Your task to perform on an android device: install app "Google Maps" Image 0: 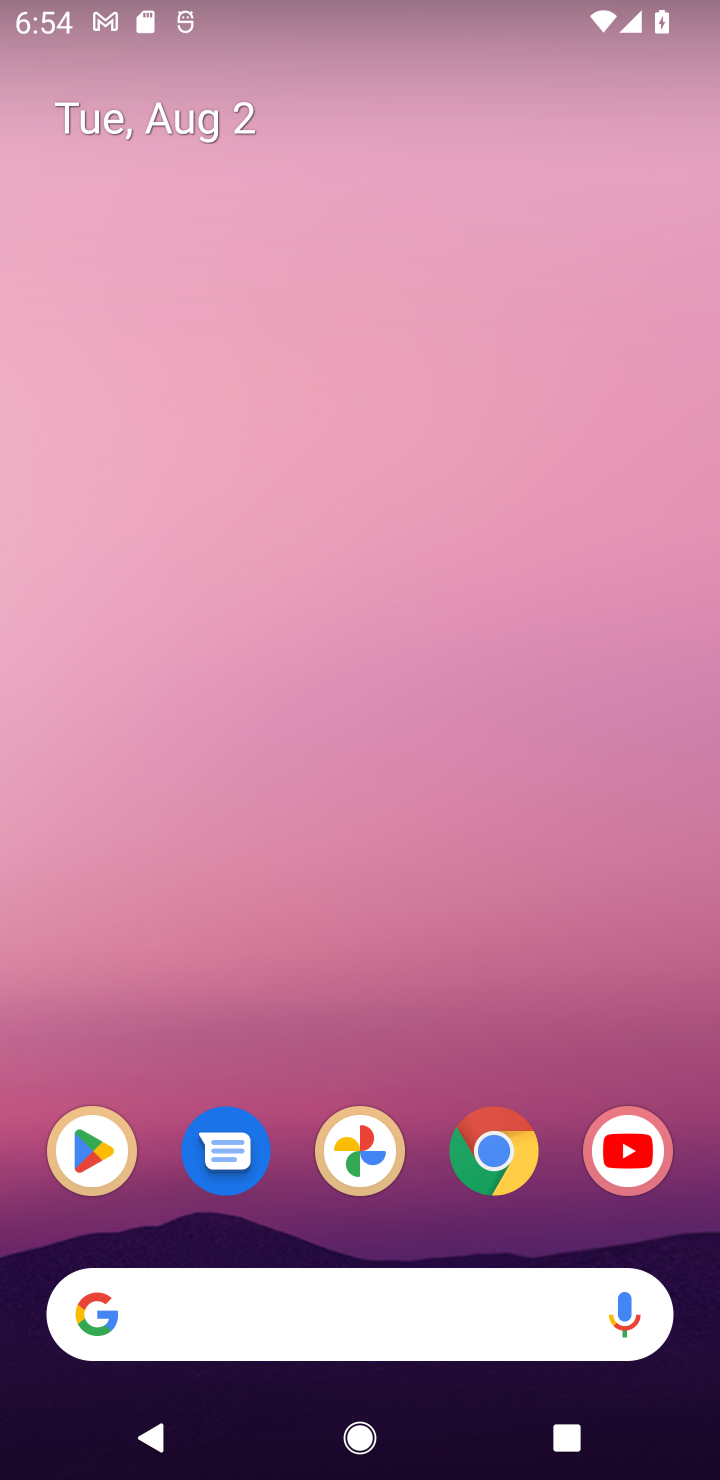
Step 0: click (44, 1203)
Your task to perform on an android device: install app "Google Maps" Image 1: 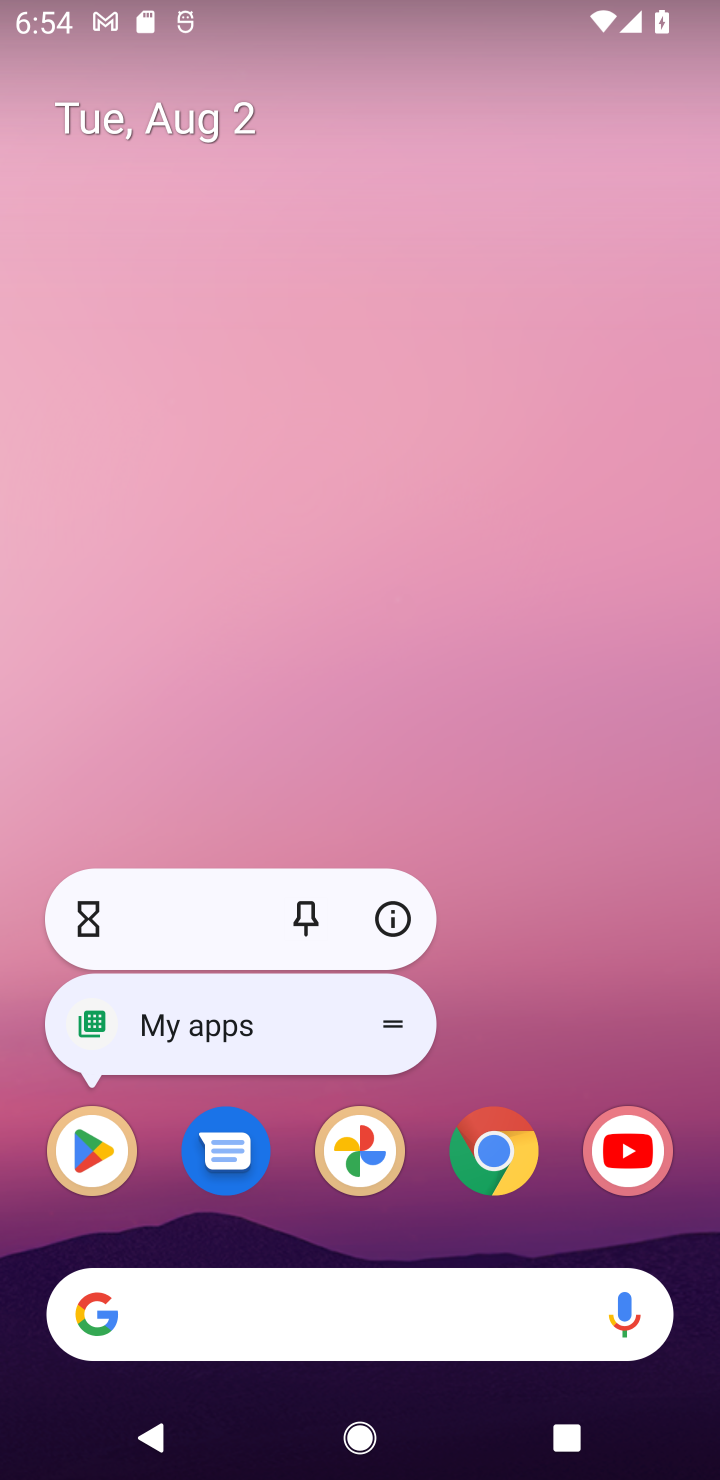
Step 1: click (83, 1184)
Your task to perform on an android device: install app "Google Maps" Image 2: 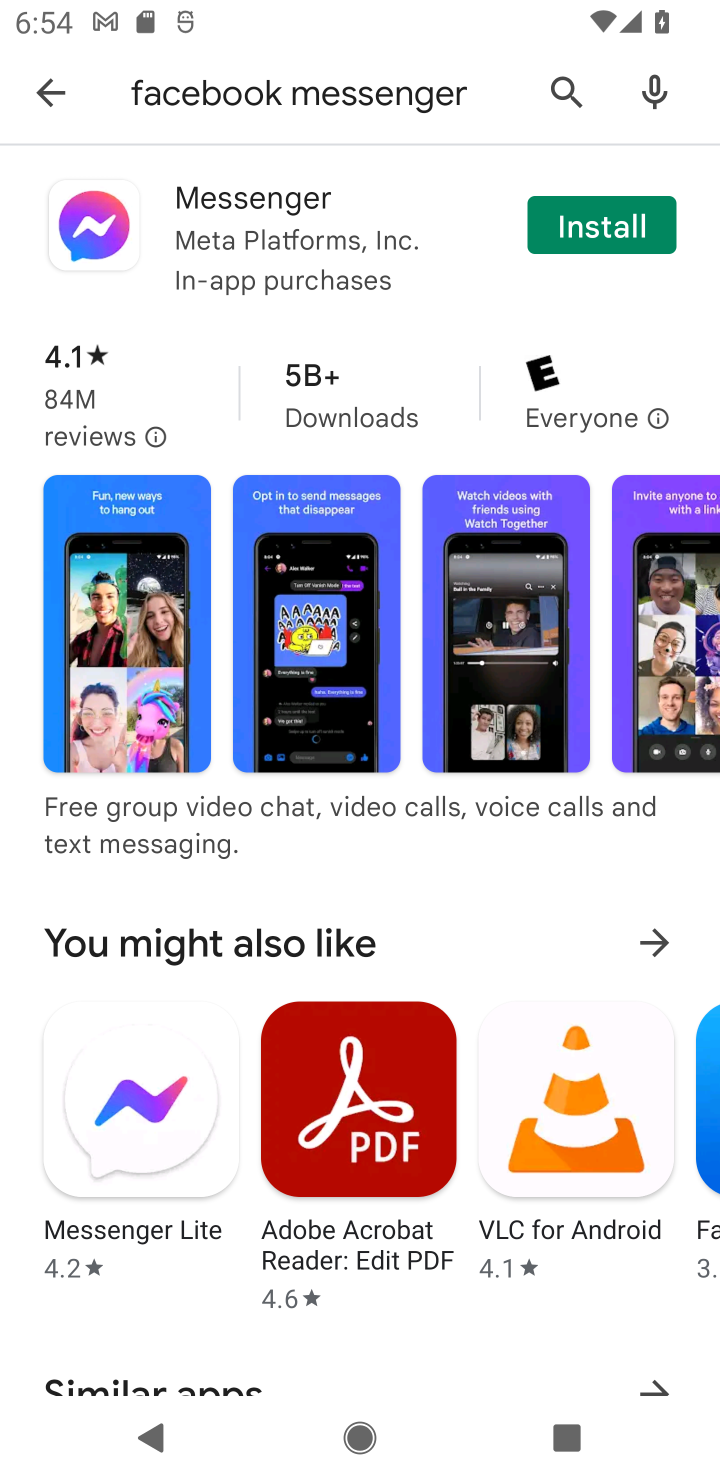
Step 2: click (536, 80)
Your task to perform on an android device: install app "Google Maps" Image 3: 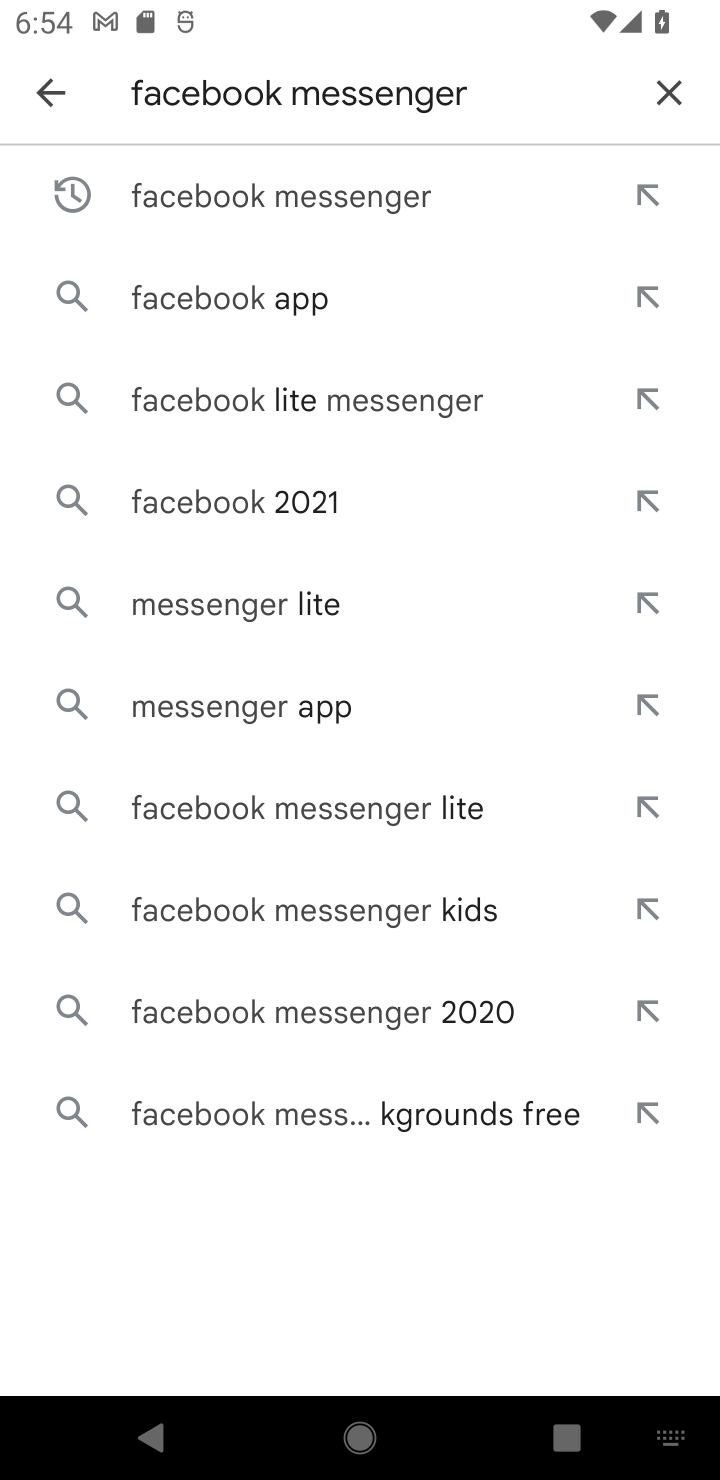
Step 3: click (660, 80)
Your task to perform on an android device: install app "Google Maps" Image 4: 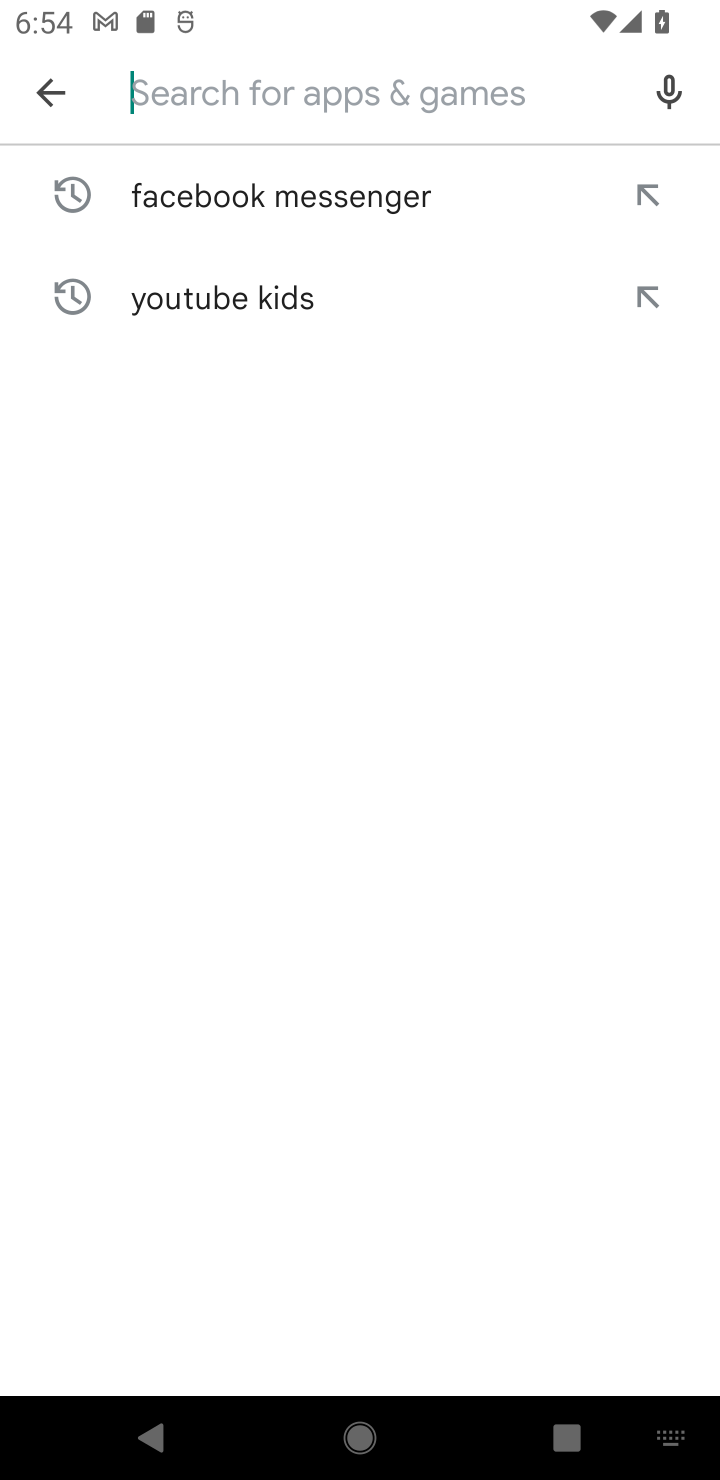
Step 4: type "Google Maps"
Your task to perform on an android device: install app "Google Maps" Image 5: 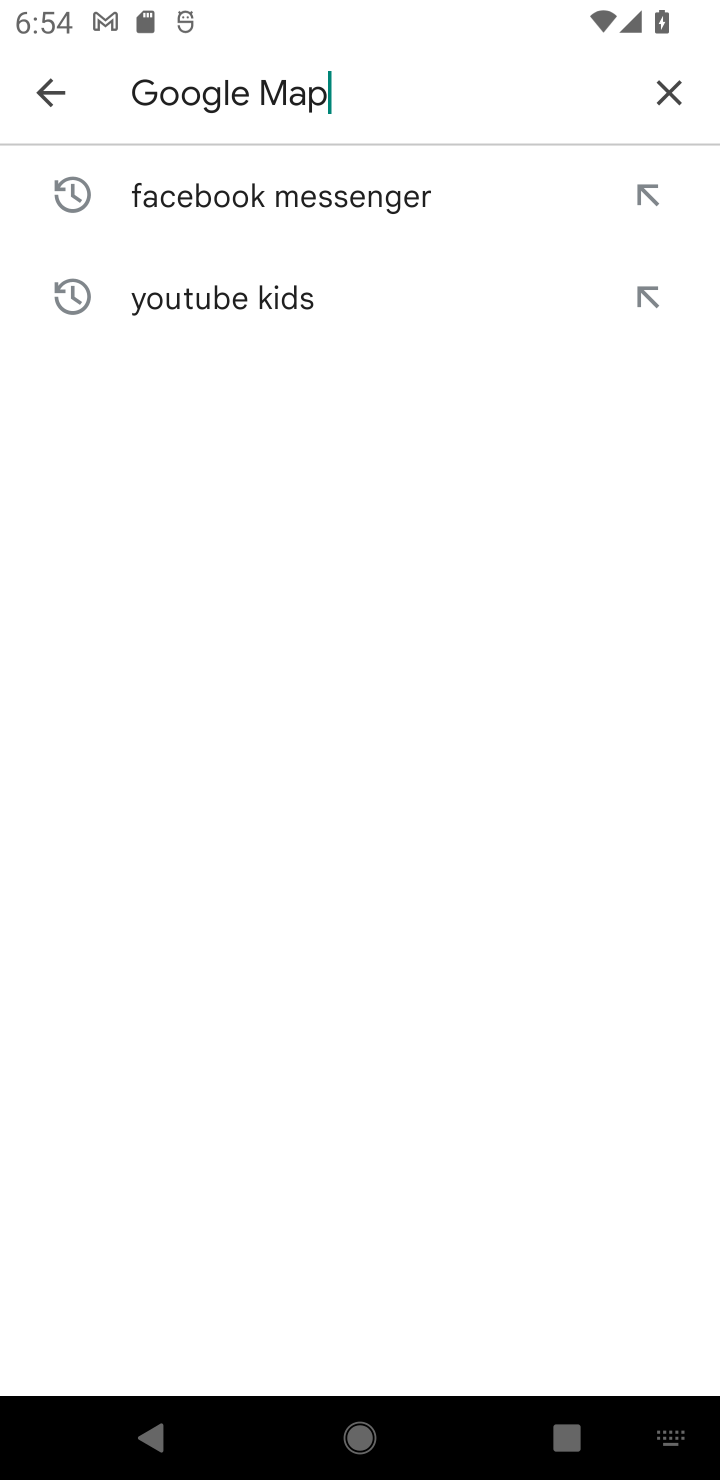
Step 5: type ""
Your task to perform on an android device: install app "Google Maps" Image 6: 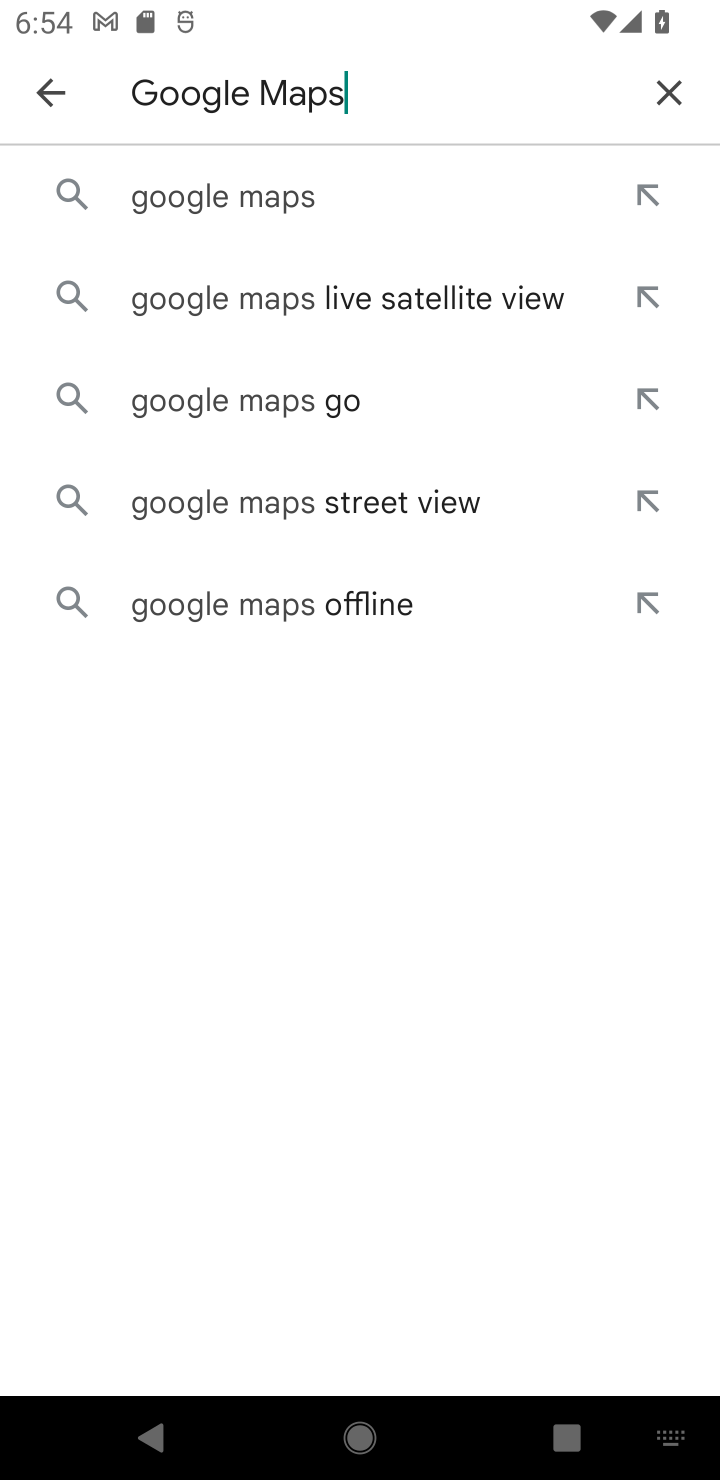
Step 6: click (240, 184)
Your task to perform on an android device: install app "Google Maps" Image 7: 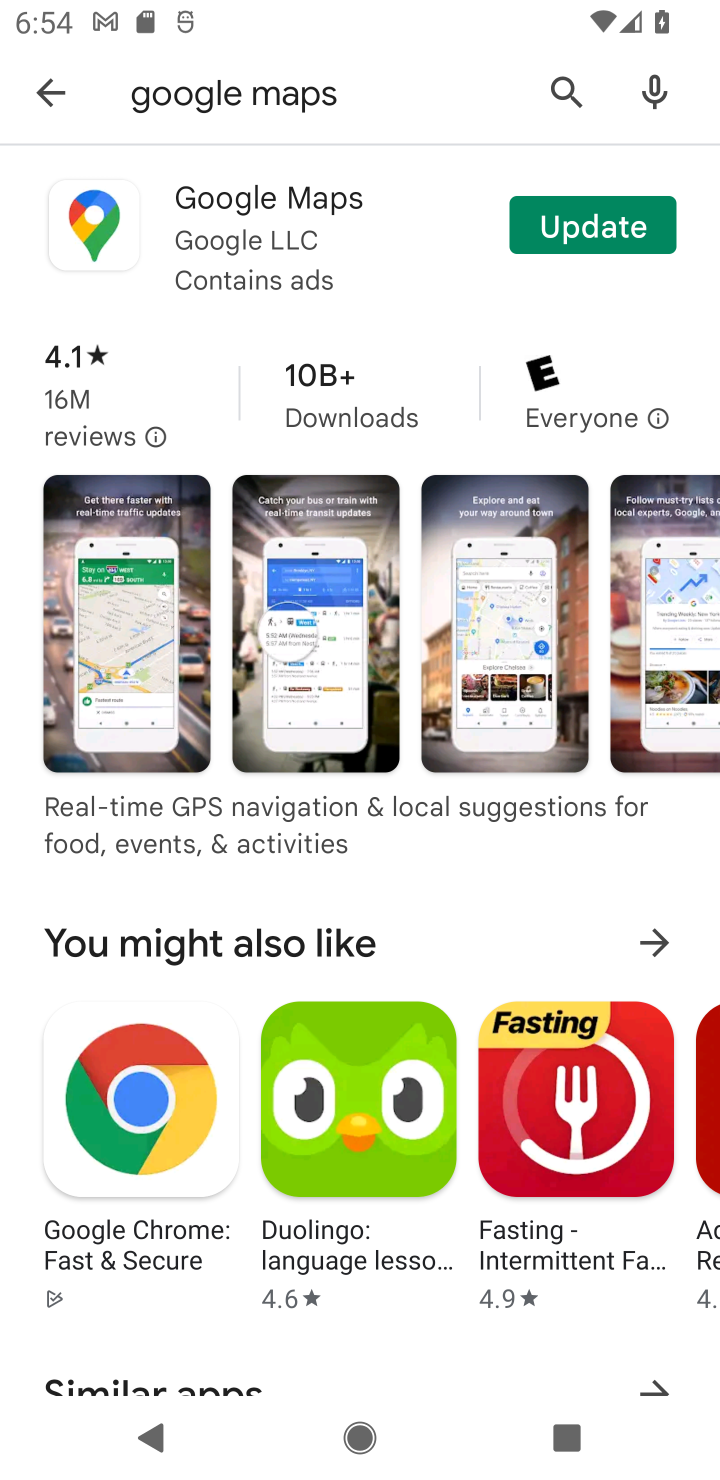
Step 7: task complete